Your task to perform on an android device: Show me productivity apps on the Play Store Image 0: 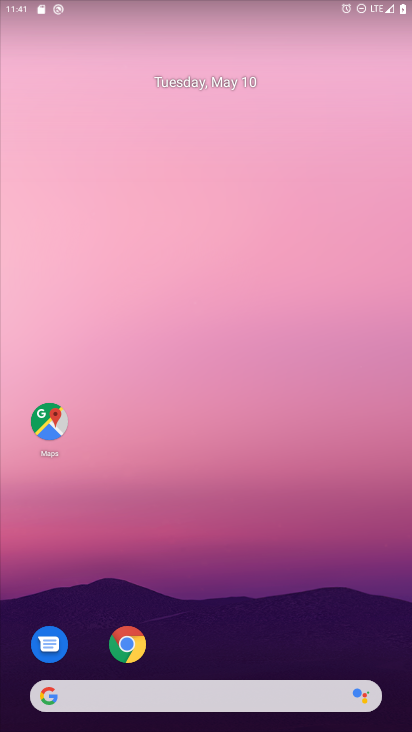
Step 0: drag from (319, 613) to (322, 186)
Your task to perform on an android device: Show me productivity apps on the Play Store Image 1: 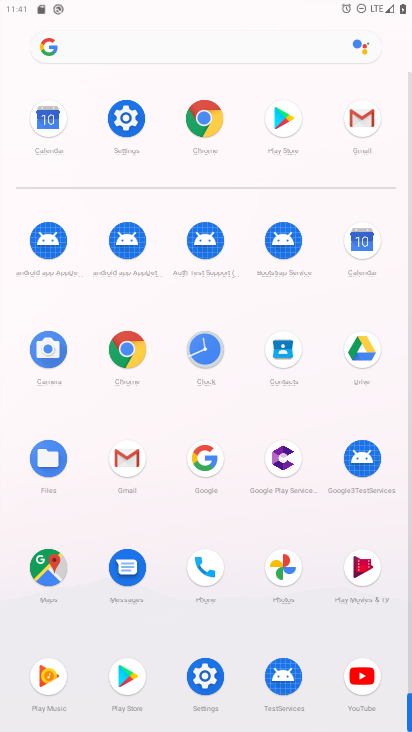
Step 1: click (129, 669)
Your task to perform on an android device: Show me productivity apps on the Play Store Image 2: 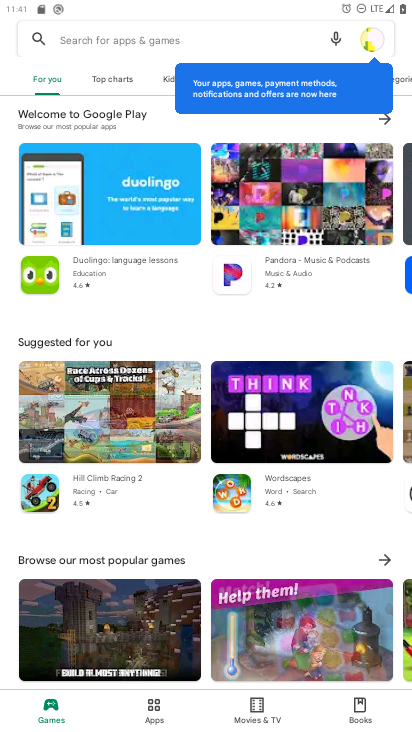
Step 2: click (191, 28)
Your task to perform on an android device: Show me productivity apps on the Play Store Image 3: 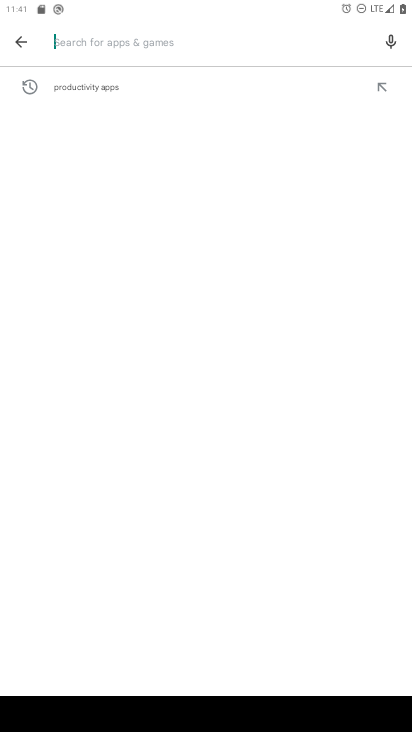
Step 3: type "productivity aaps"
Your task to perform on an android device: Show me productivity apps on the Play Store Image 4: 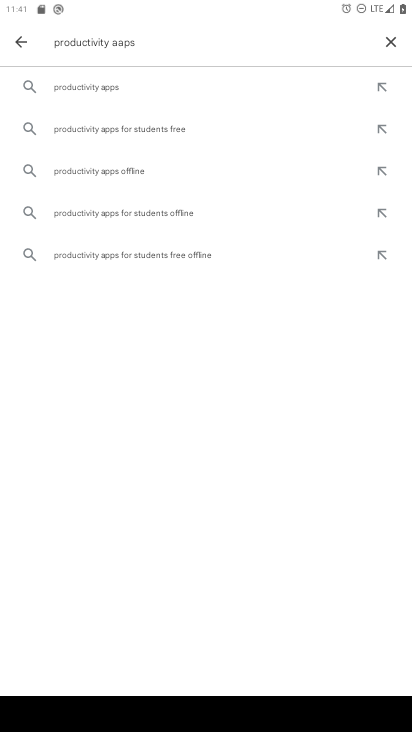
Step 4: click (299, 85)
Your task to perform on an android device: Show me productivity apps on the Play Store Image 5: 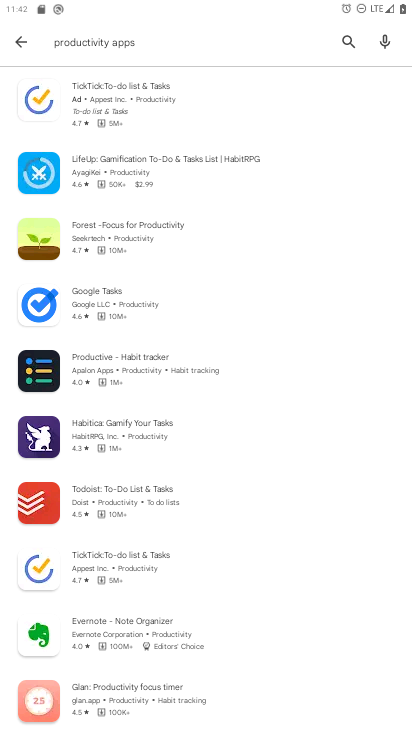
Step 5: task complete